Your task to perform on an android device: Open Google Maps Image 0: 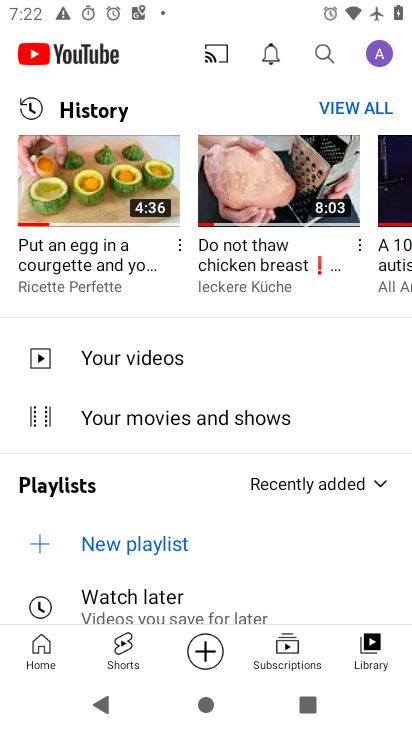
Step 0: press home button
Your task to perform on an android device: Open Google Maps Image 1: 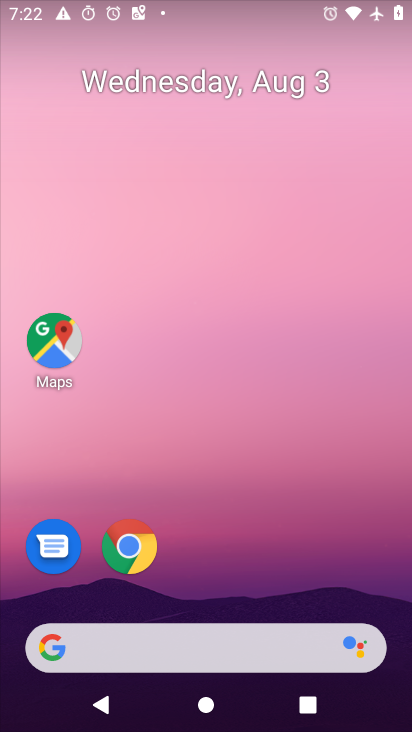
Step 1: click (53, 341)
Your task to perform on an android device: Open Google Maps Image 2: 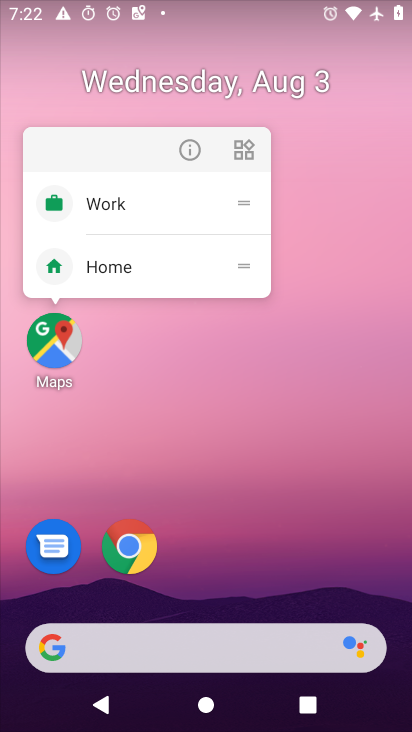
Step 2: click (54, 355)
Your task to perform on an android device: Open Google Maps Image 3: 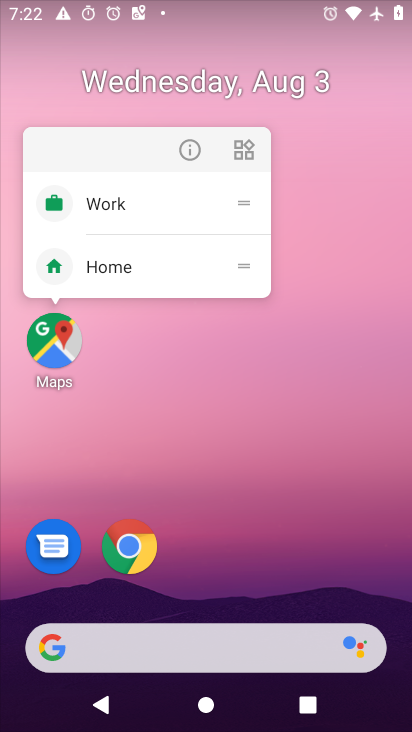
Step 3: click (54, 355)
Your task to perform on an android device: Open Google Maps Image 4: 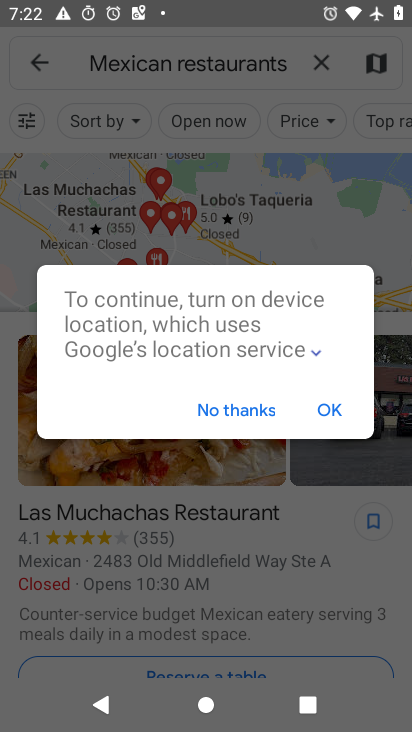
Step 4: click (339, 420)
Your task to perform on an android device: Open Google Maps Image 5: 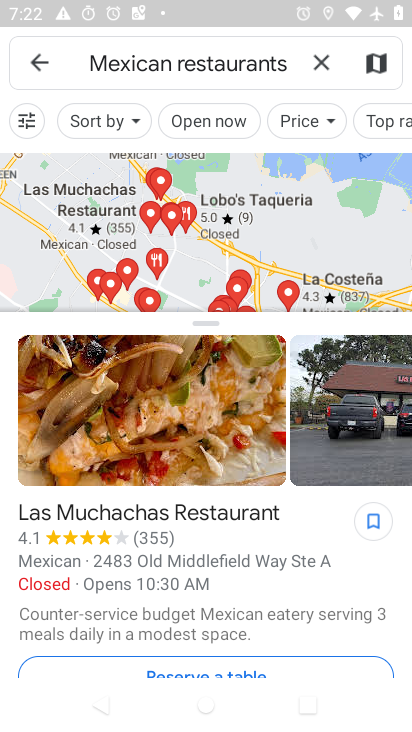
Step 5: click (323, 65)
Your task to perform on an android device: Open Google Maps Image 6: 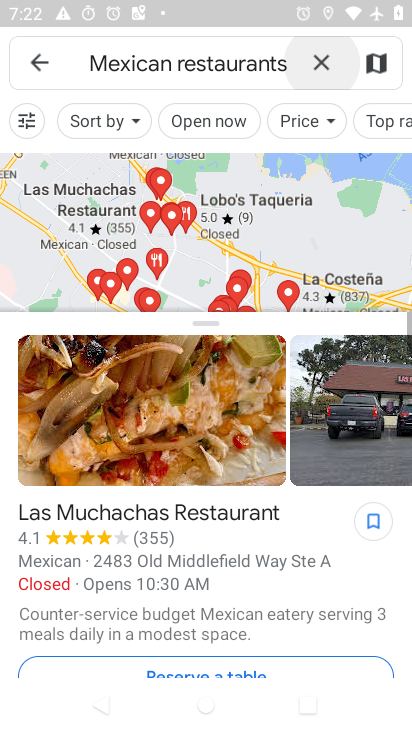
Step 6: click (38, 63)
Your task to perform on an android device: Open Google Maps Image 7: 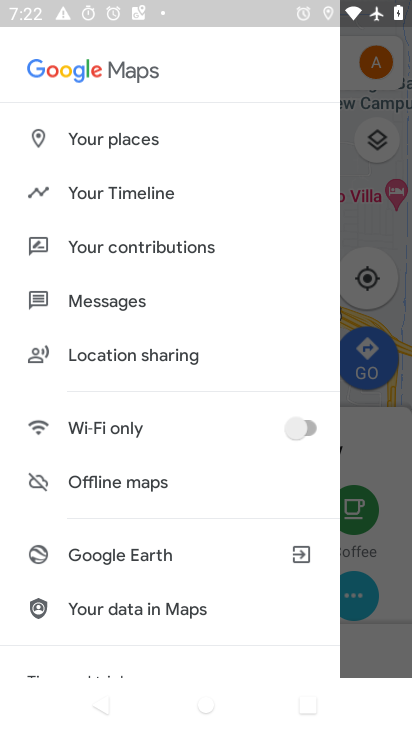
Step 7: task complete